Your task to perform on an android device: empty trash in google photos Image 0: 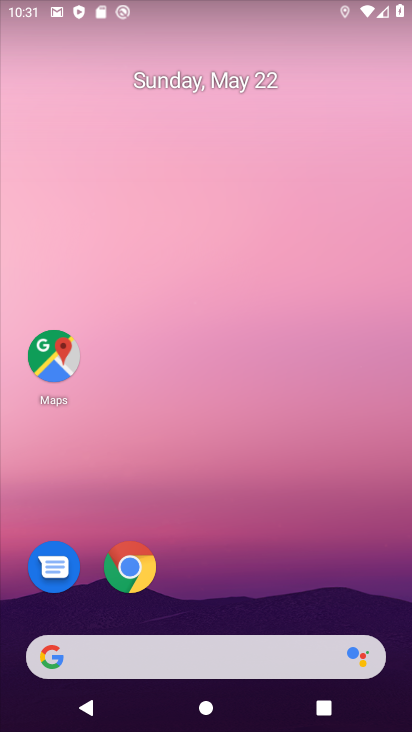
Step 0: drag from (277, 571) to (280, 198)
Your task to perform on an android device: empty trash in google photos Image 1: 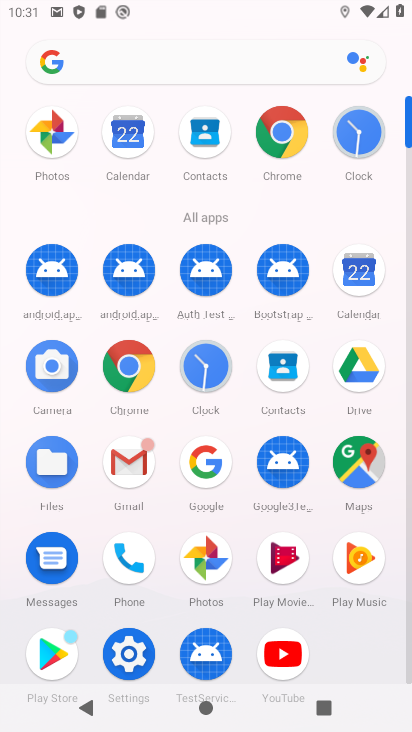
Step 1: click (213, 582)
Your task to perform on an android device: empty trash in google photos Image 2: 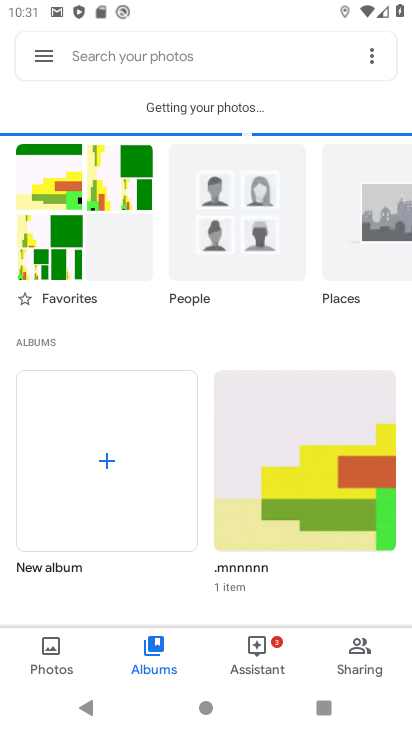
Step 2: click (41, 63)
Your task to perform on an android device: empty trash in google photos Image 3: 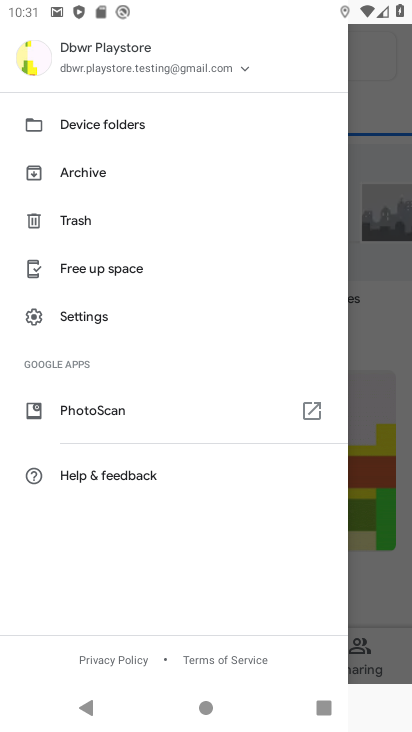
Step 3: click (80, 225)
Your task to perform on an android device: empty trash in google photos Image 4: 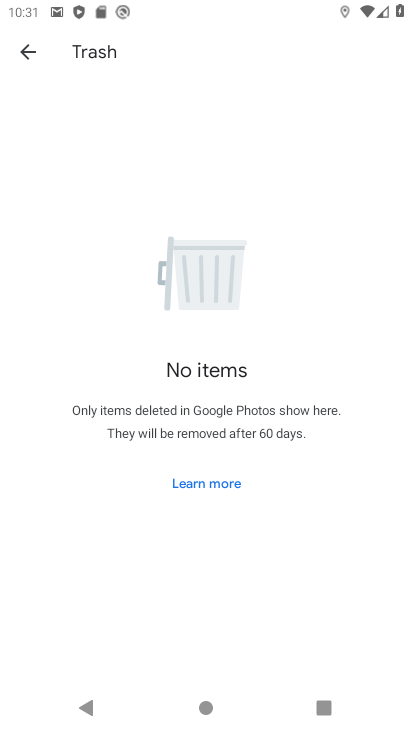
Step 4: task complete